Your task to perform on an android device: Open the web browser Image 0: 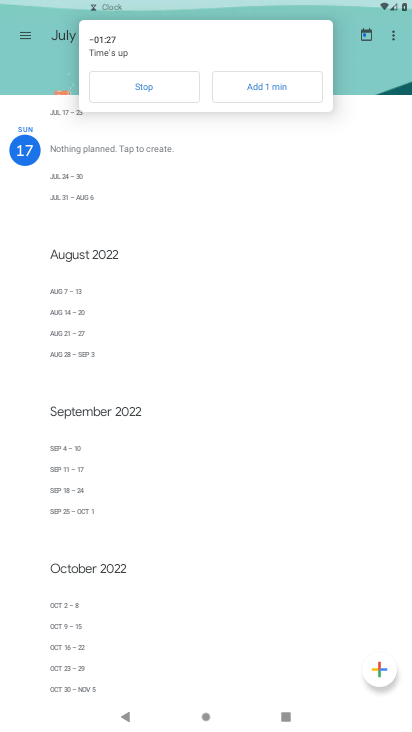
Step 0: press home button
Your task to perform on an android device: Open the web browser Image 1: 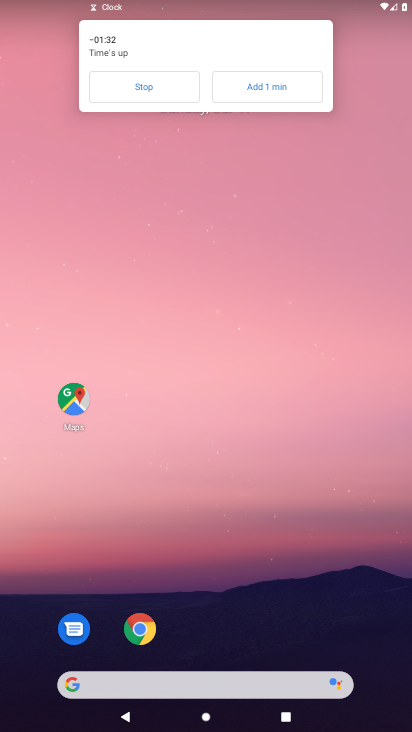
Step 1: click (139, 627)
Your task to perform on an android device: Open the web browser Image 2: 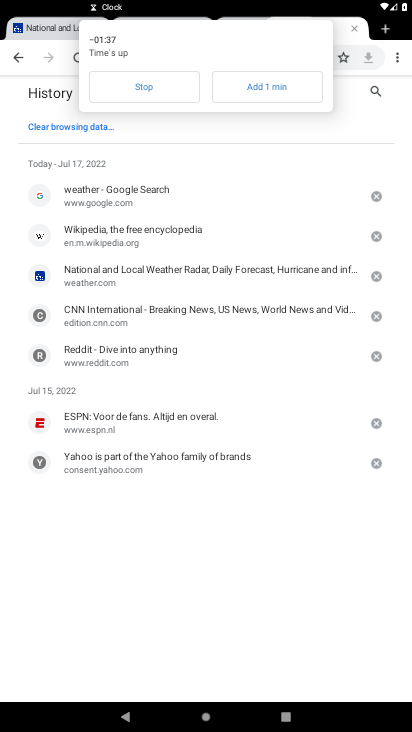
Step 2: task complete